Your task to perform on an android device: star an email in the gmail app Image 0: 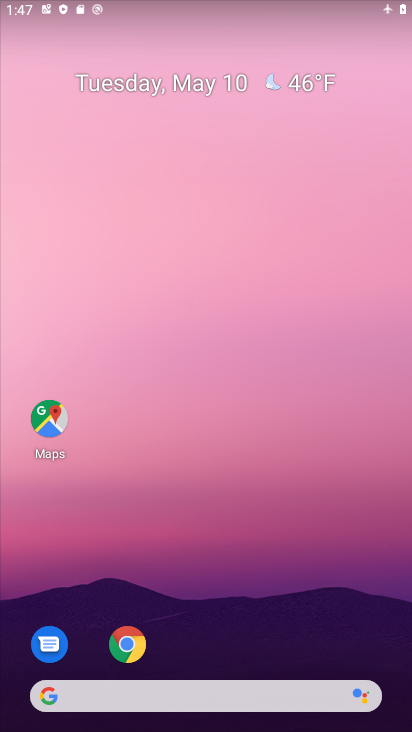
Step 0: drag from (233, 627) to (214, 190)
Your task to perform on an android device: star an email in the gmail app Image 1: 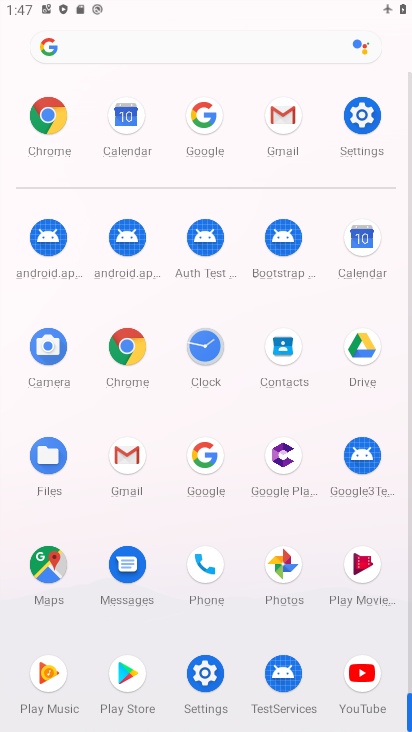
Step 1: click (117, 478)
Your task to perform on an android device: star an email in the gmail app Image 2: 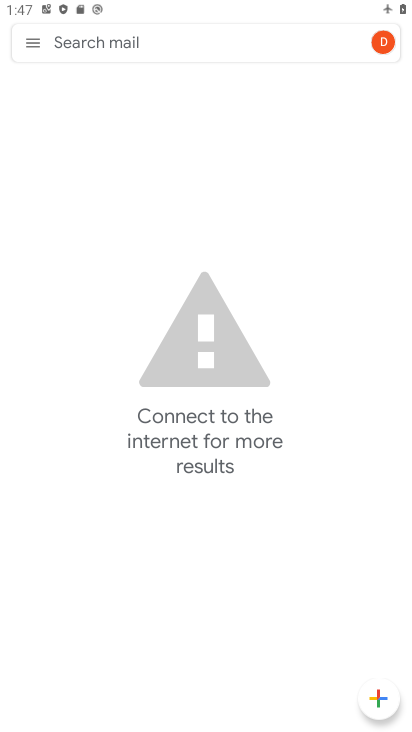
Step 2: click (23, 57)
Your task to perform on an android device: star an email in the gmail app Image 3: 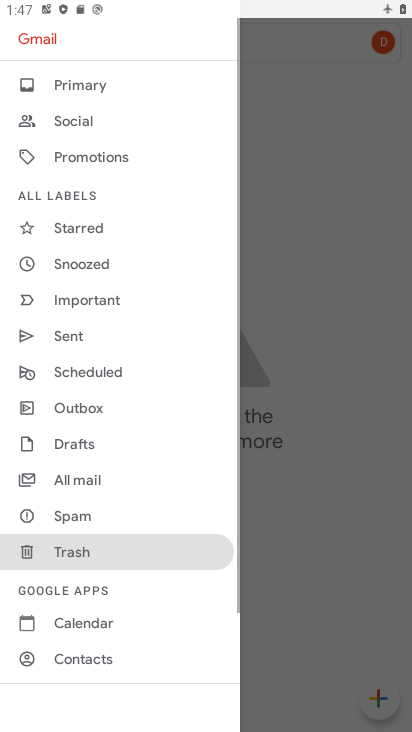
Step 3: click (87, 499)
Your task to perform on an android device: star an email in the gmail app Image 4: 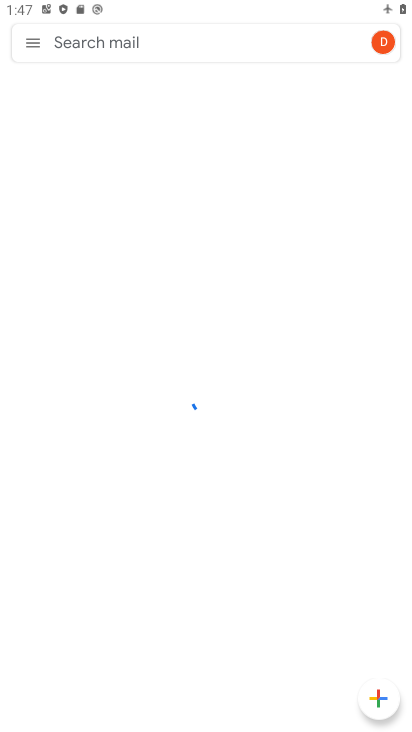
Step 4: task complete